Your task to perform on an android device: toggle airplane mode Image 0: 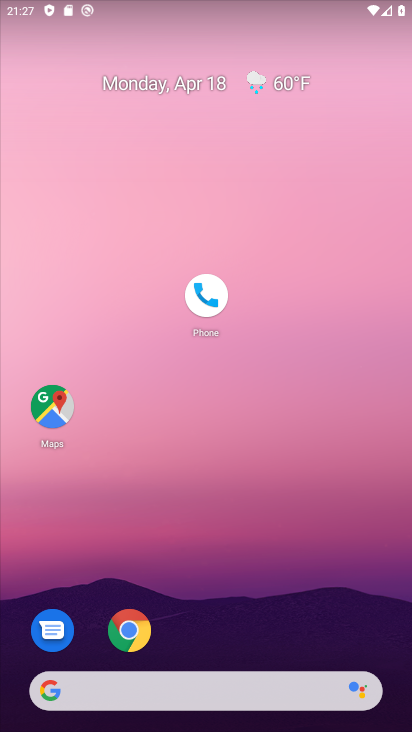
Step 0: drag from (312, 0) to (366, 563)
Your task to perform on an android device: toggle airplane mode Image 1: 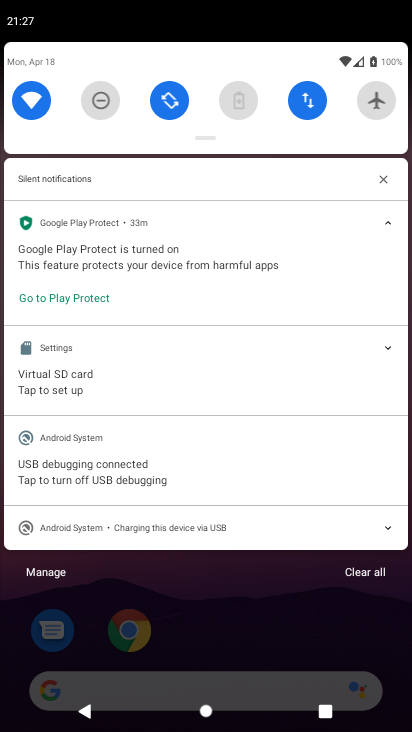
Step 1: click (373, 105)
Your task to perform on an android device: toggle airplane mode Image 2: 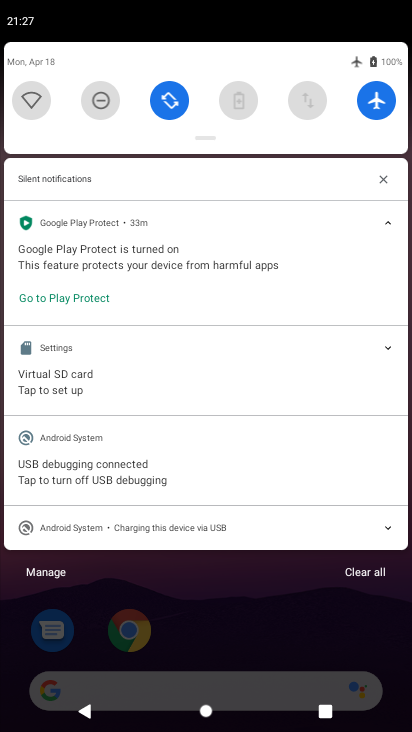
Step 2: task complete